Your task to perform on an android device: Go to display settings Image 0: 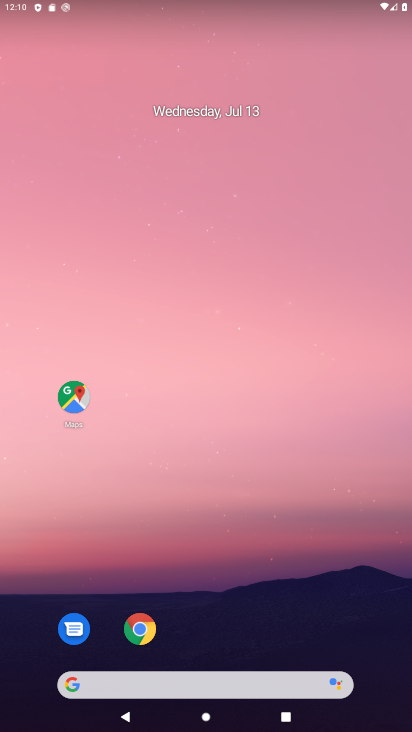
Step 0: drag from (246, 643) to (162, 134)
Your task to perform on an android device: Go to display settings Image 1: 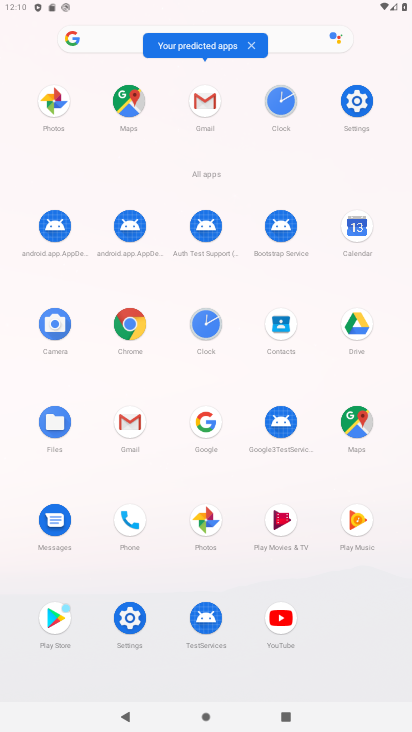
Step 1: click (362, 102)
Your task to perform on an android device: Go to display settings Image 2: 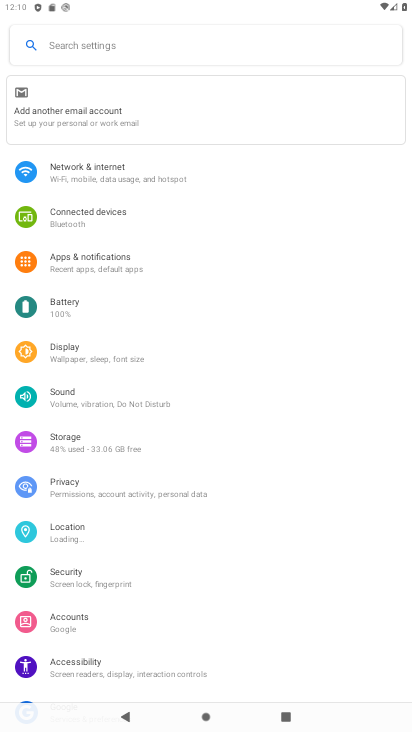
Step 2: click (52, 340)
Your task to perform on an android device: Go to display settings Image 3: 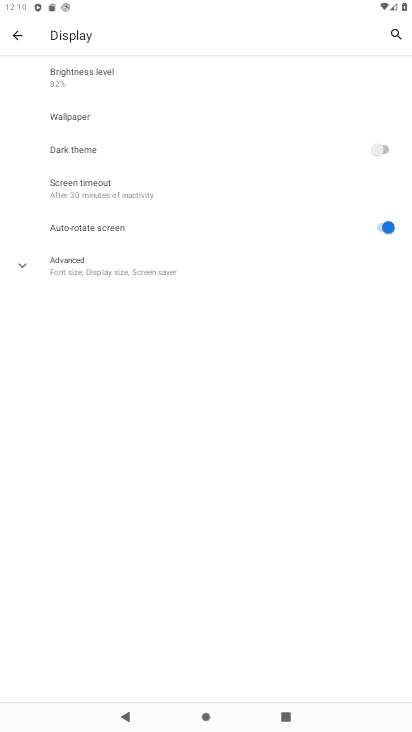
Step 3: task complete